Your task to perform on an android device: Go to Maps Image 0: 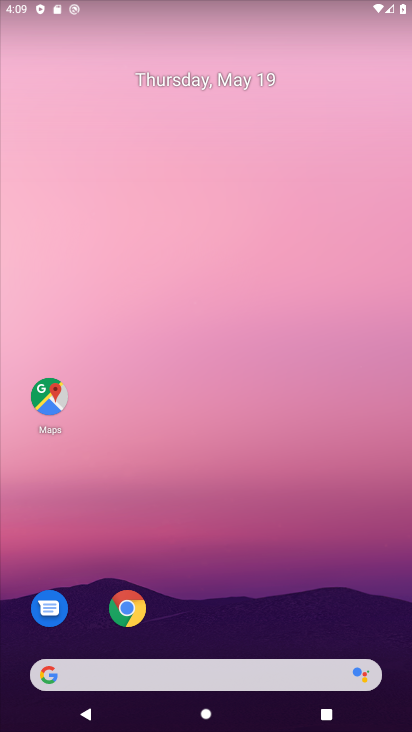
Step 0: click (50, 404)
Your task to perform on an android device: Go to Maps Image 1: 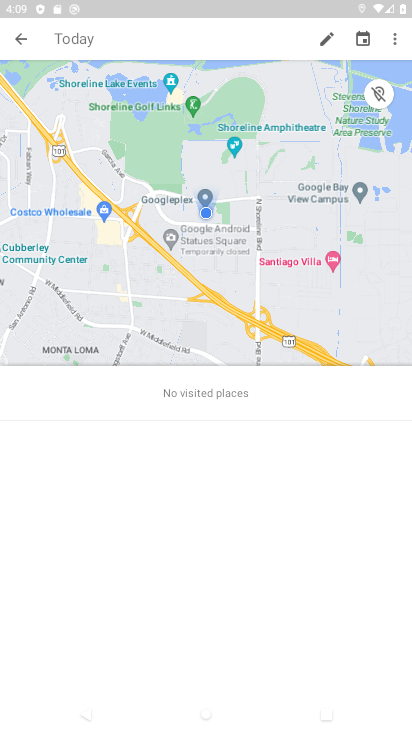
Step 1: task complete